Your task to perform on an android device: What's on my calendar tomorrow? Image 0: 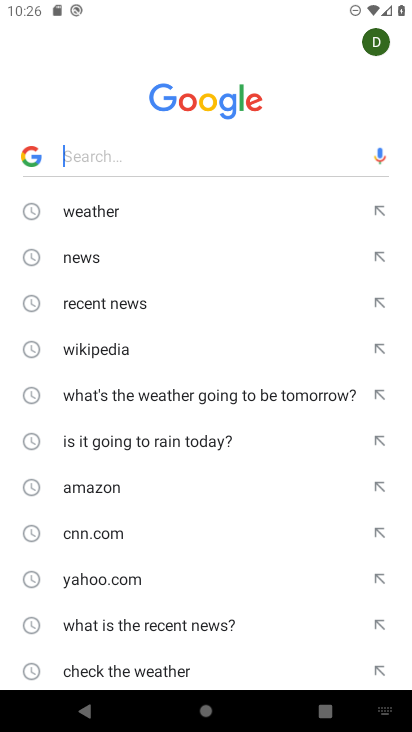
Step 0: press home button
Your task to perform on an android device: What's on my calendar tomorrow? Image 1: 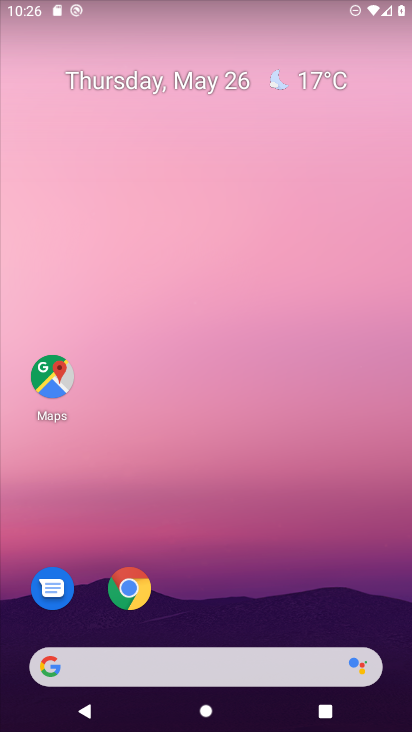
Step 1: drag from (353, 610) to (317, 63)
Your task to perform on an android device: What's on my calendar tomorrow? Image 2: 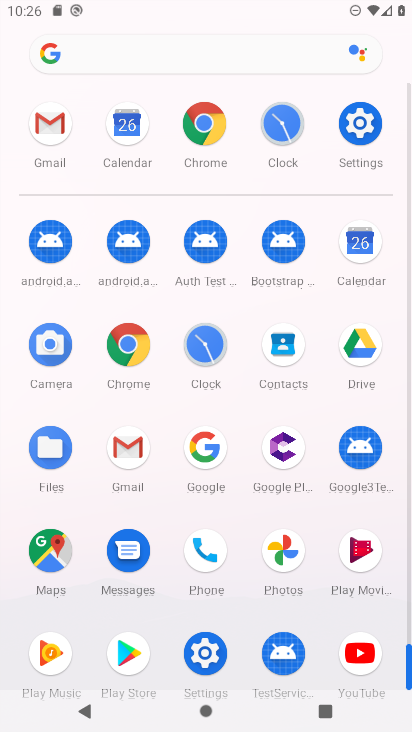
Step 2: click (360, 239)
Your task to perform on an android device: What's on my calendar tomorrow? Image 3: 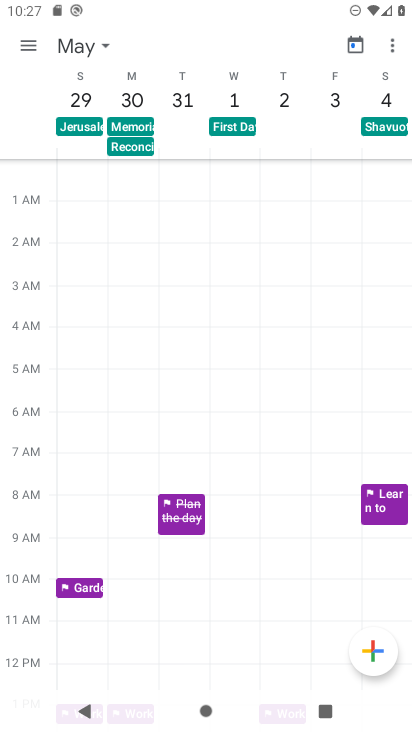
Step 3: click (35, 46)
Your task to perform on an android device: What's on my calendar tomorrow? Image 4: 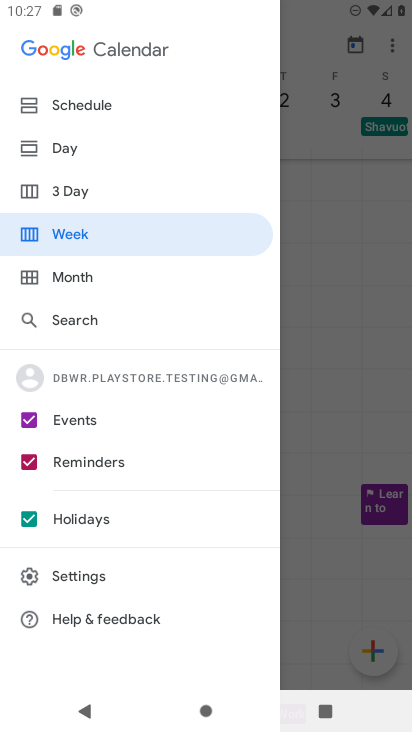
Step 4: click (68, 145)
Your task to perform on an android device: What's on my calendar tomorrow? Image 5: 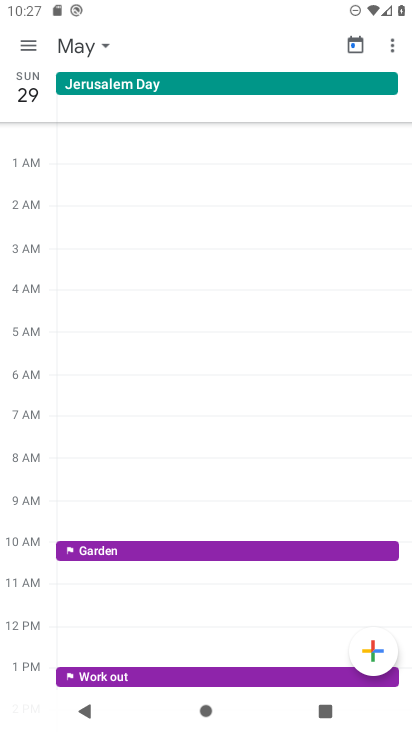
Step 5: click (106, 45)
Your task to perform on an android device: What's on my calendar tomorrow? Image 6: 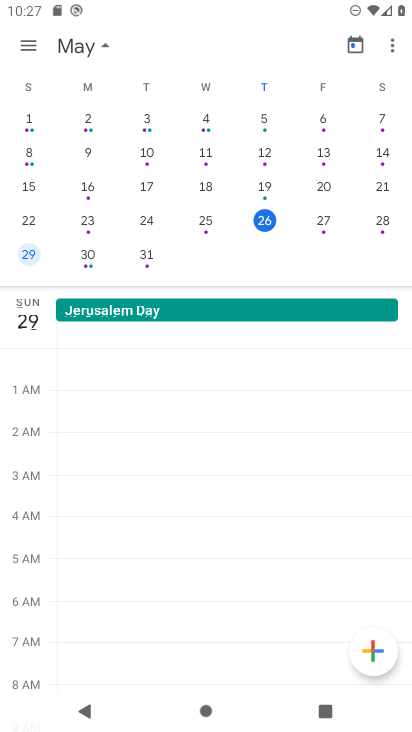
Step 6: click (322, 216)
Your task to perform on an android device: What's on my calendar tomorrow? Image 7: 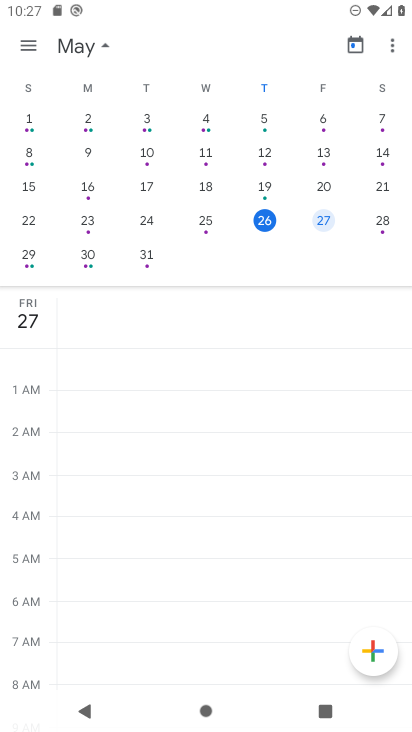
Step 7: task complete